Your task to perform on an android device: open app "Chime – Mobile Banking" (install if not already installed) Image 0: 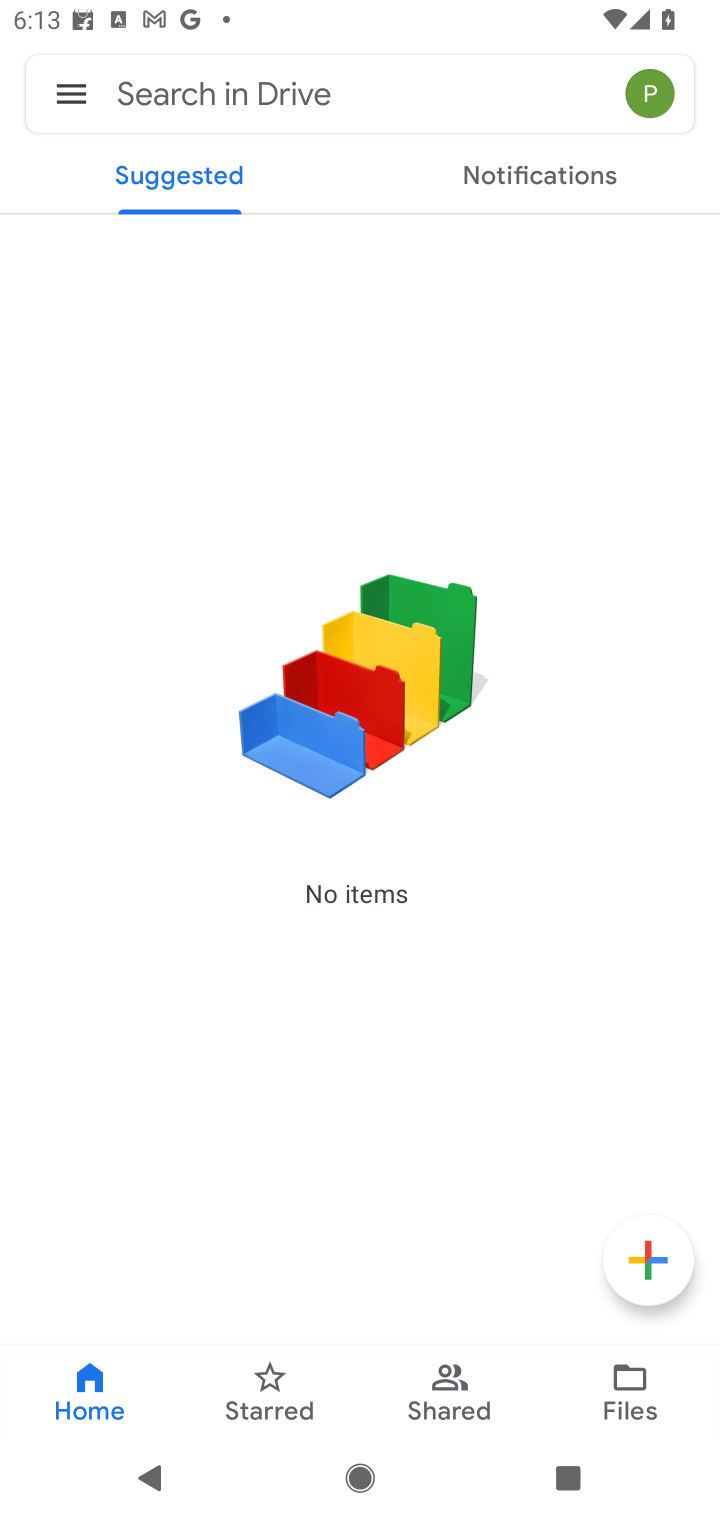
Step 0: press home button
Your task to perform on an android device: open app "Chime – Mobile Banking" (install if not already installed) Image 1: 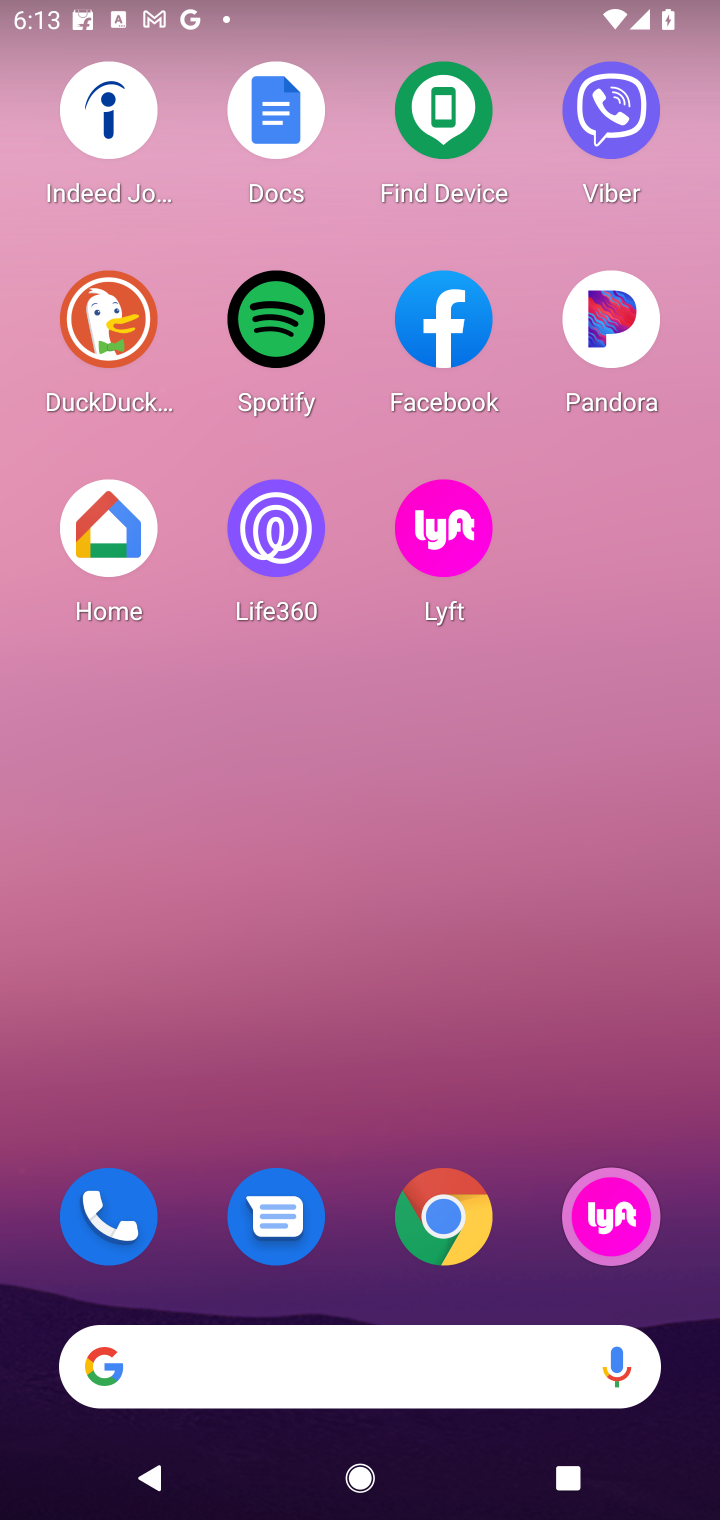
Step 1: drag from (364, 1050) to (387, 118)
Your task to perform on an android device: open app "Chime – Mobile Banking" (install if not already installed) Image 2: 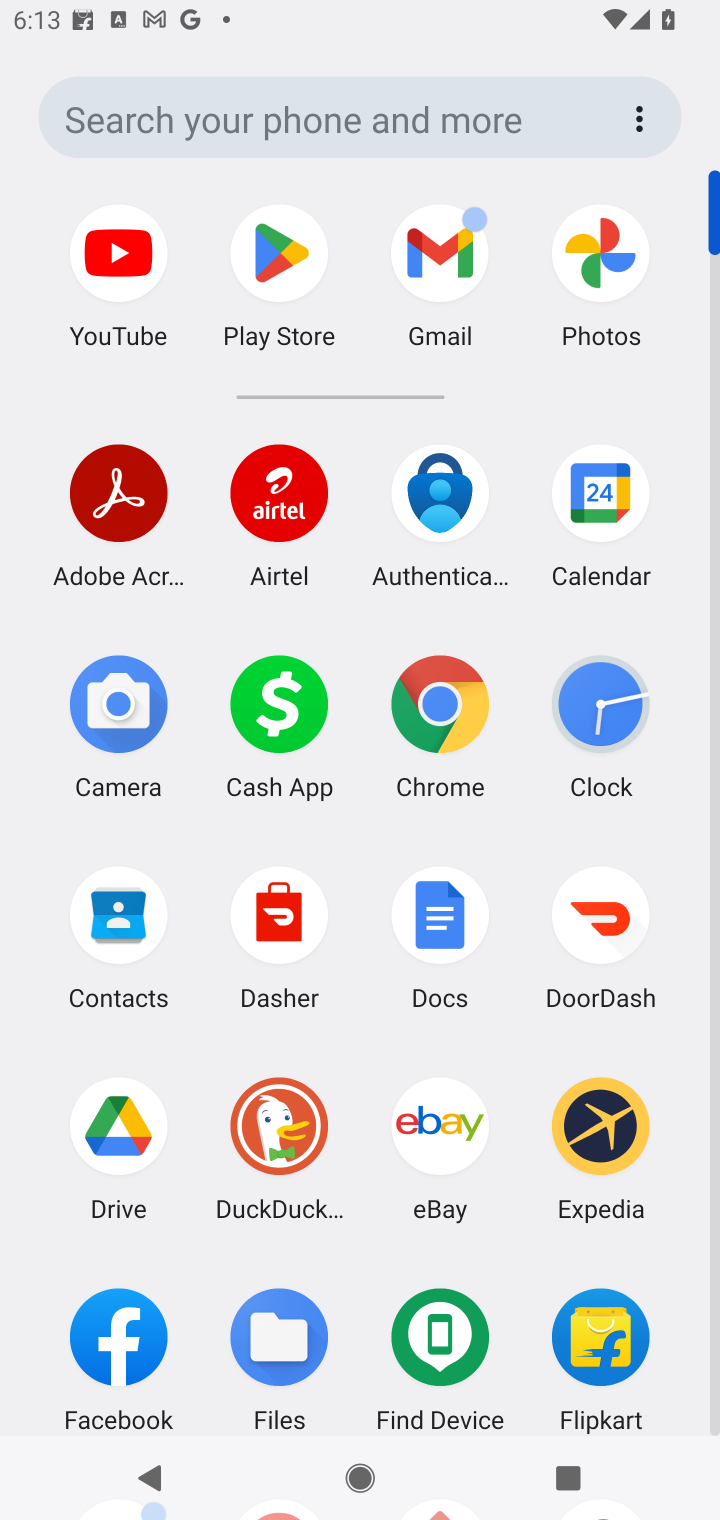
Step 2: click (294, 248)
Your task to perform on an android device: open app "Chime – Mobile Banking" (install if not already installed) Image 3: 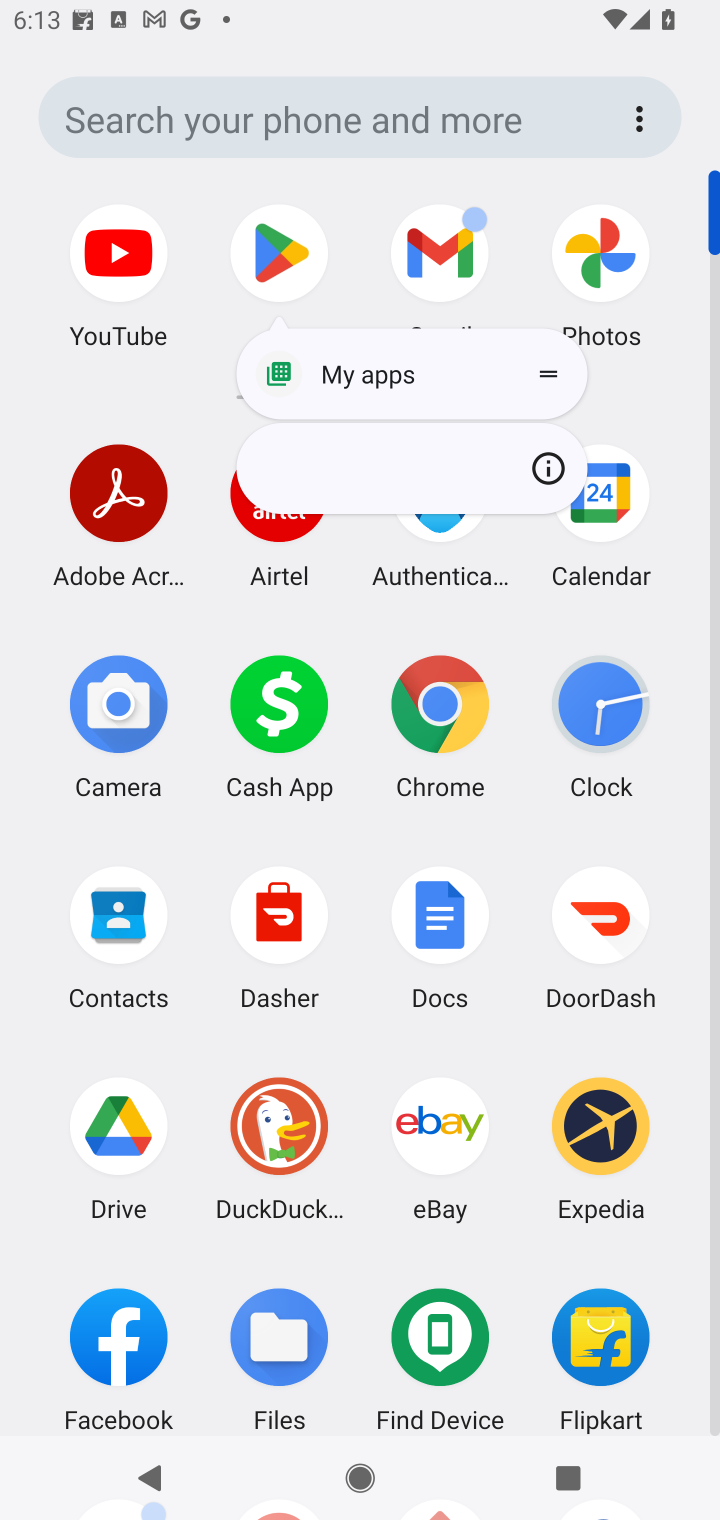
Step 3: click (282, 248)
Your task to perform on an android device: open app "Chime – Mobile Banking" (install if not already installed) Image 4: 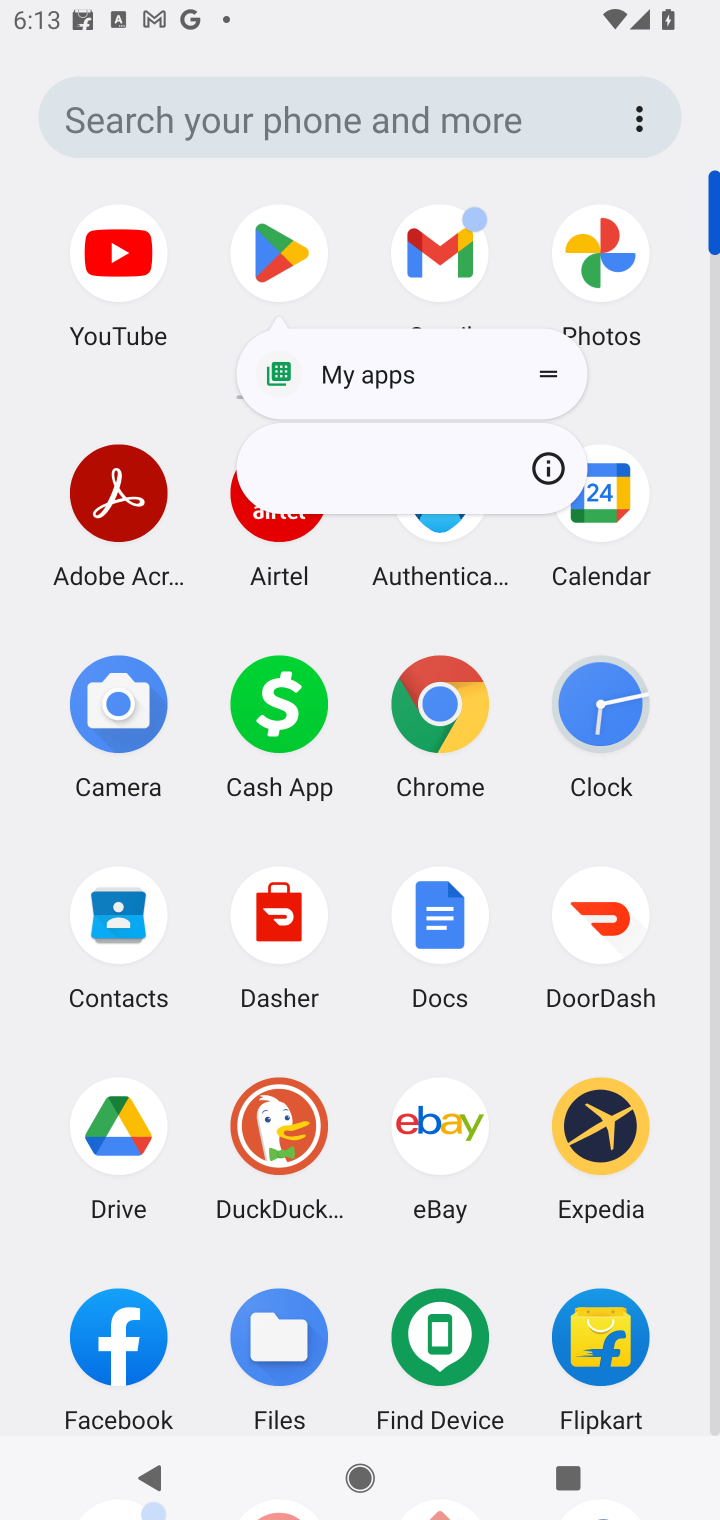
Step 4: click (282, 248)
Your task to perform on an android device: open app "Chime – Mobile Banking" (install if not already installed) Image 5: 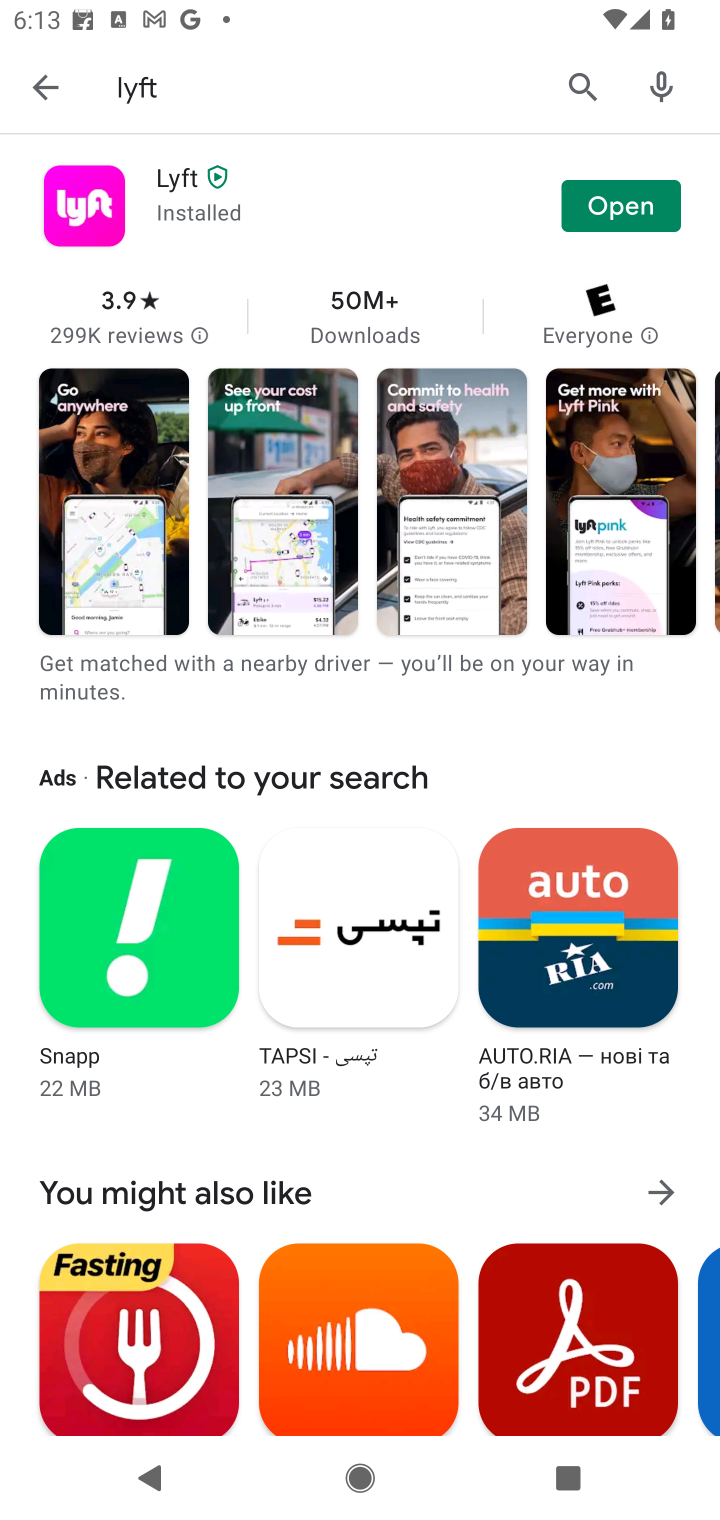
Step 5: click (574, 88)
Your task to perform on an android device: open app "Chime – Mobile Banking" (install if not already installed) Image 6: 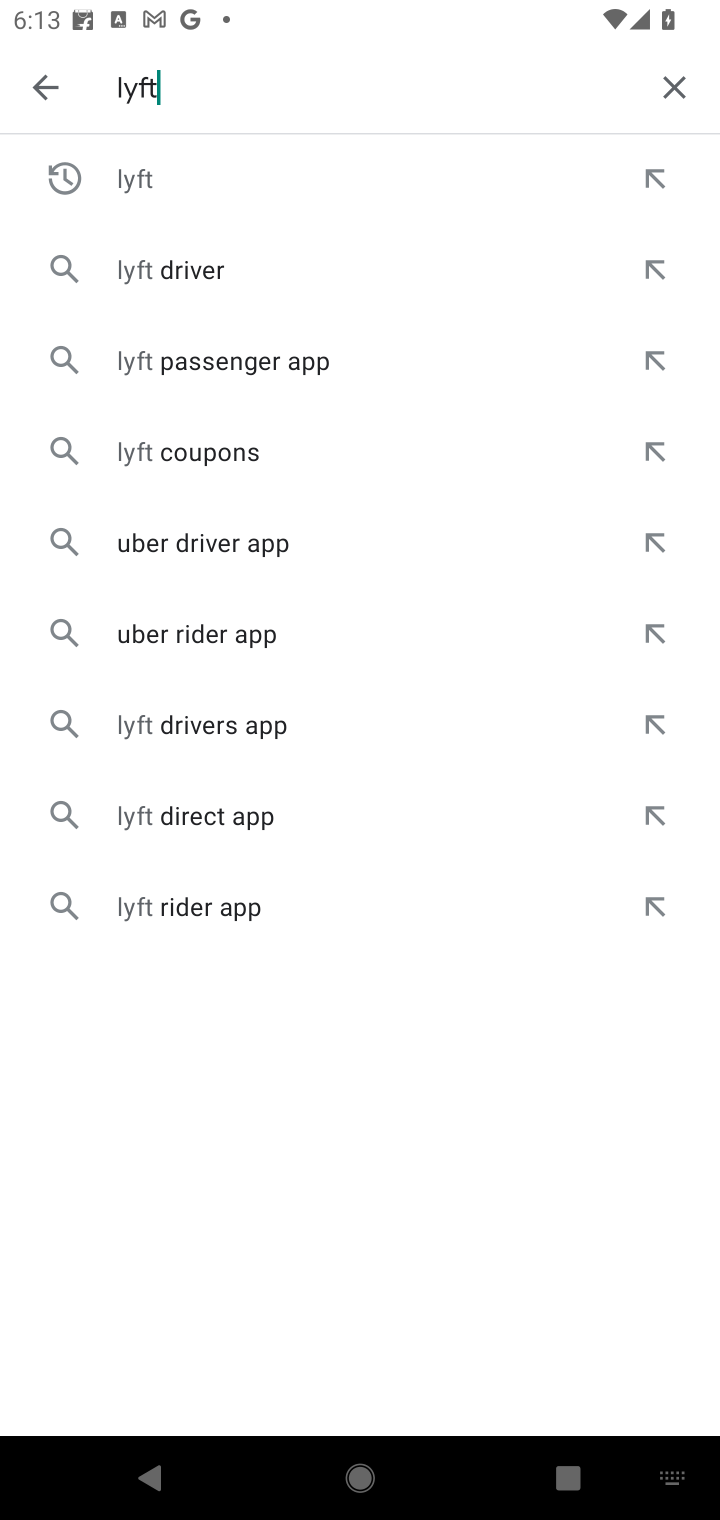
Step 6: click (664, 86)
Your task to perform on an android device: open app "Chime – Mobile Banking" (install if not already installed) Image 7: 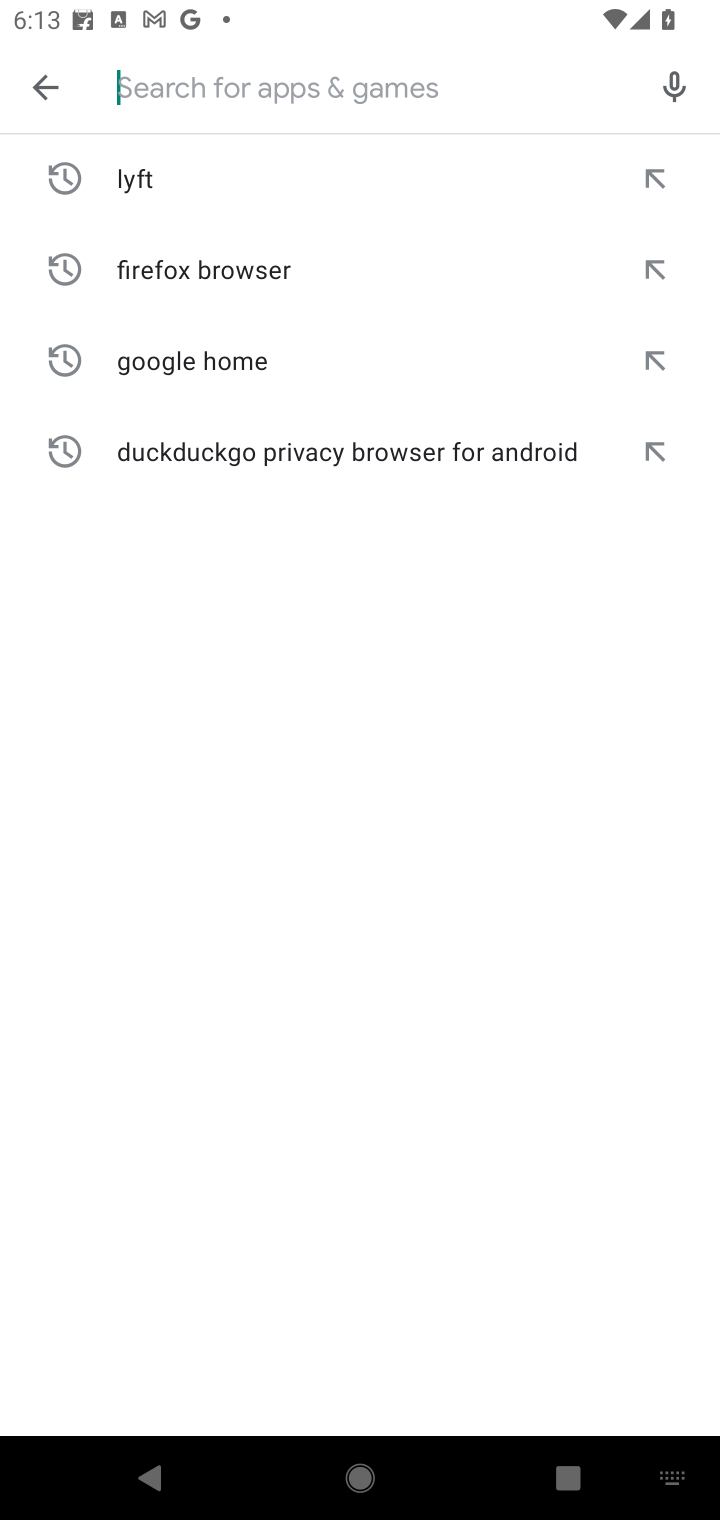
Step 7: type "Chime – Mobile Banking"
Your task to perform on an android device: open app "Chime – Mobile Banking" (install if not already installed) Image 8: 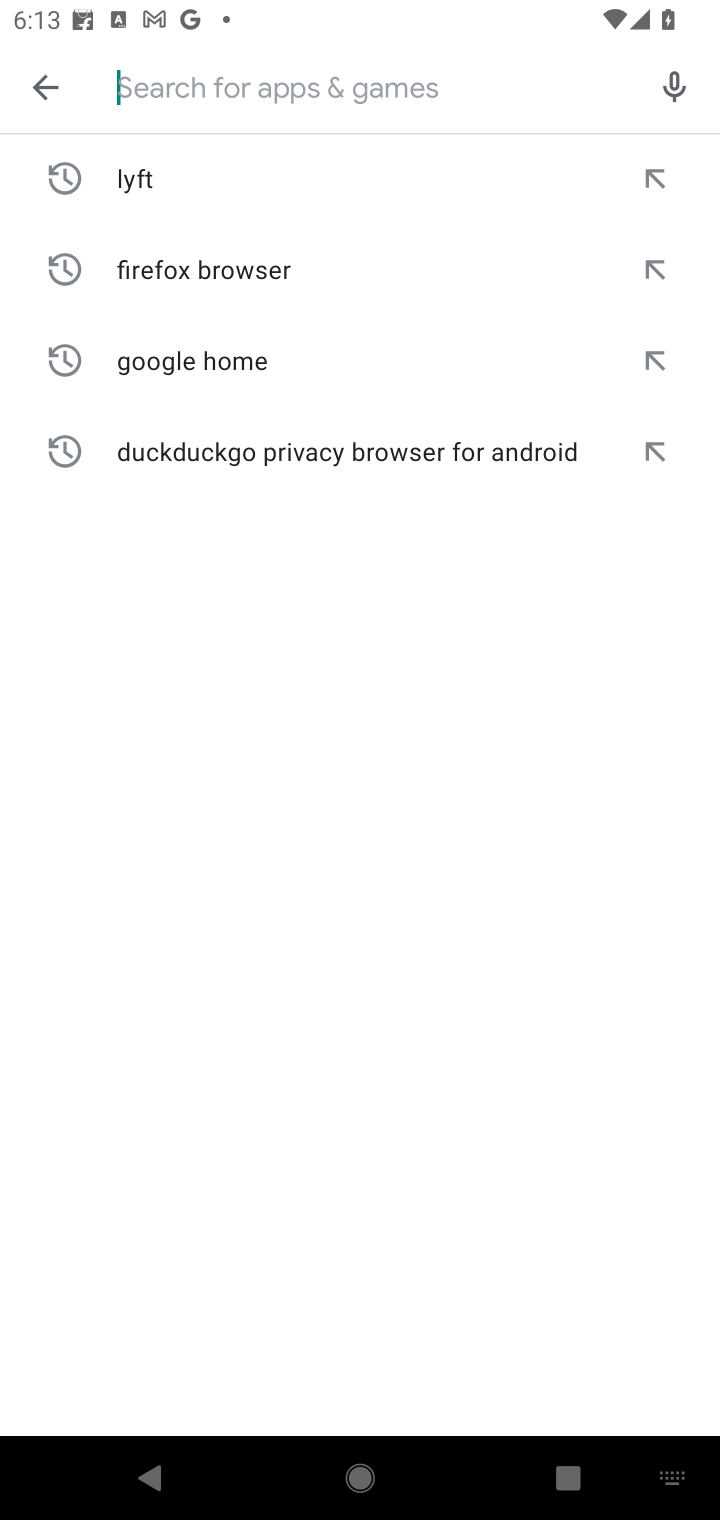
Step 8: type ""
Your task to perform on an android device: open app "Chime – Mobile Banking" (install if not already installed) Image 9: 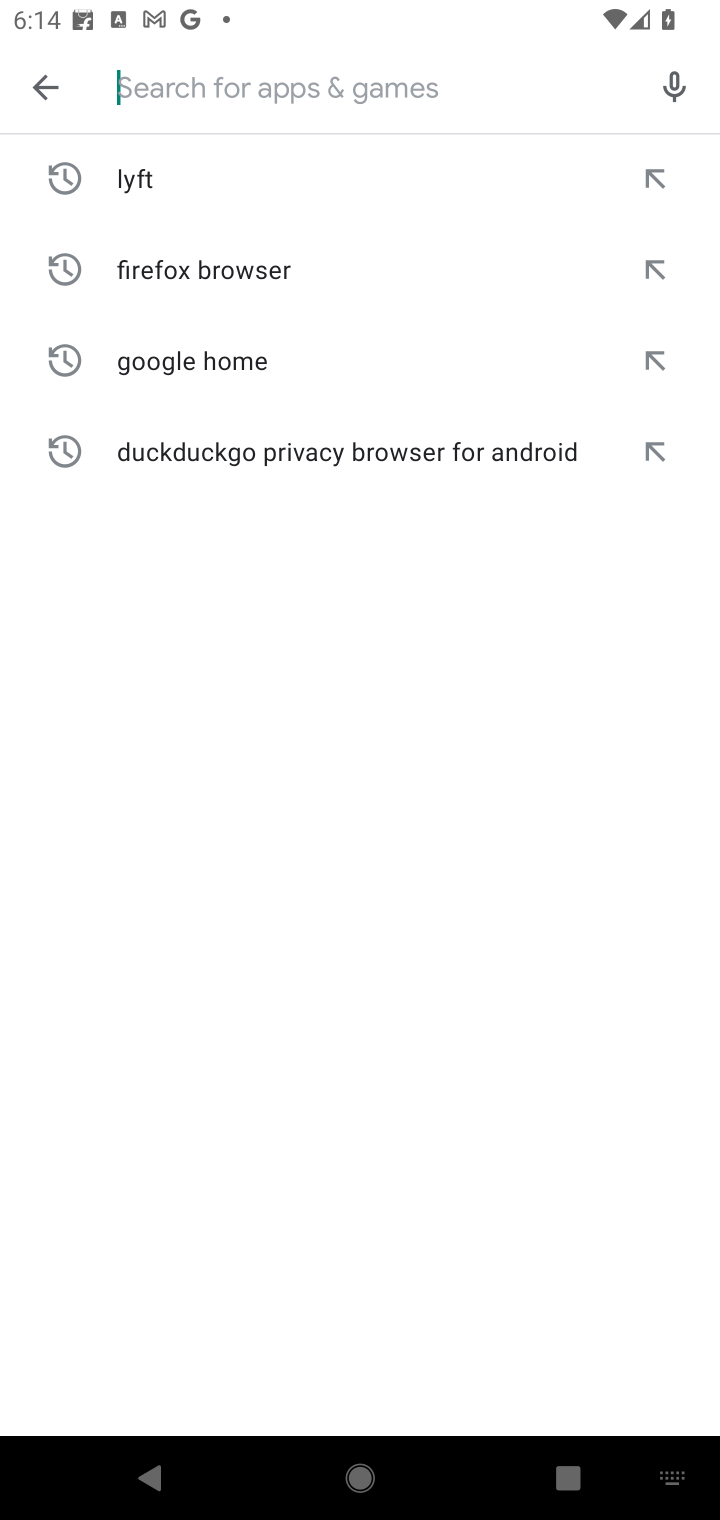
Step 9: type "Chime"
Your task to perform on an android device: open app "Chime – Mobile Banking" (install if not already installed) Image 10: 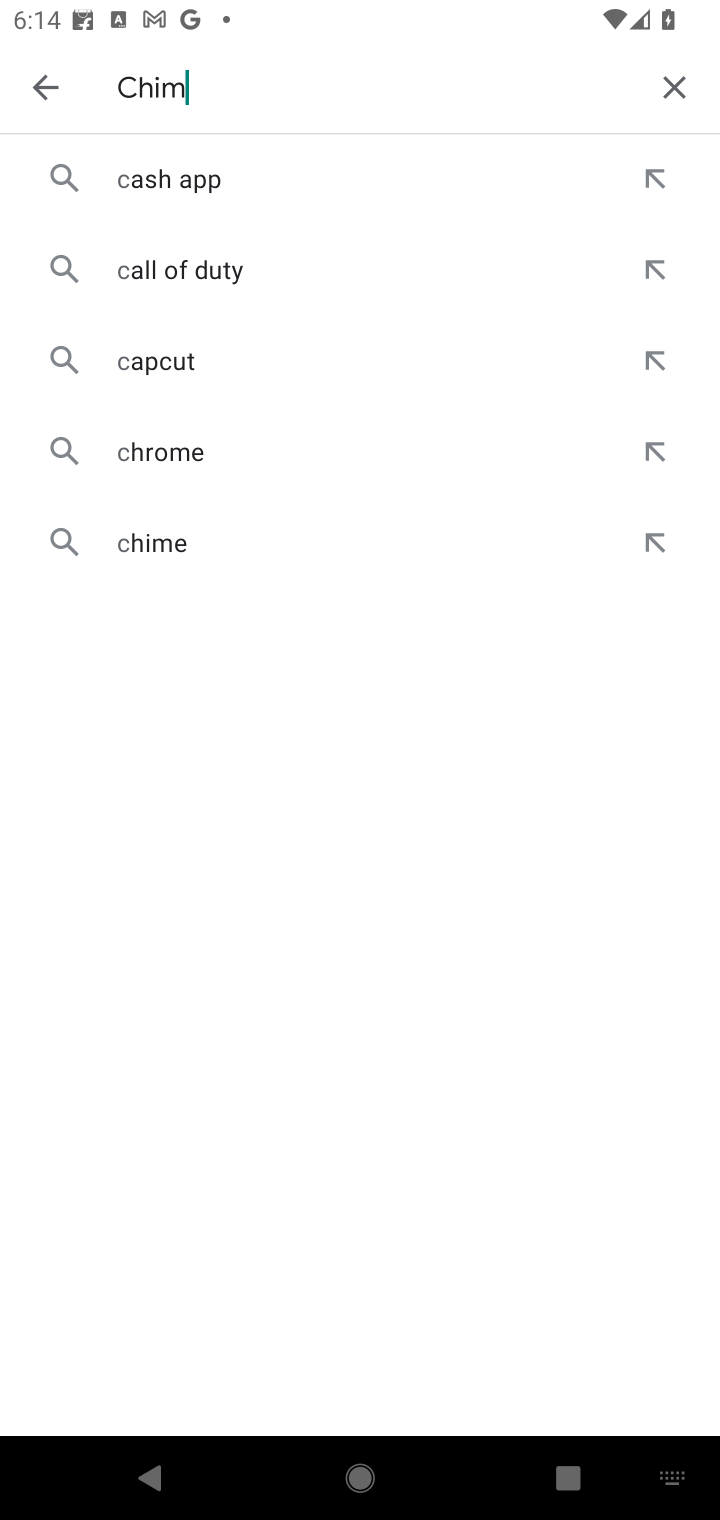
Step 10: type ""
Your task to perform on an android device: open app "Chime – Mobile Banking" (install if not already installed) Image 11: 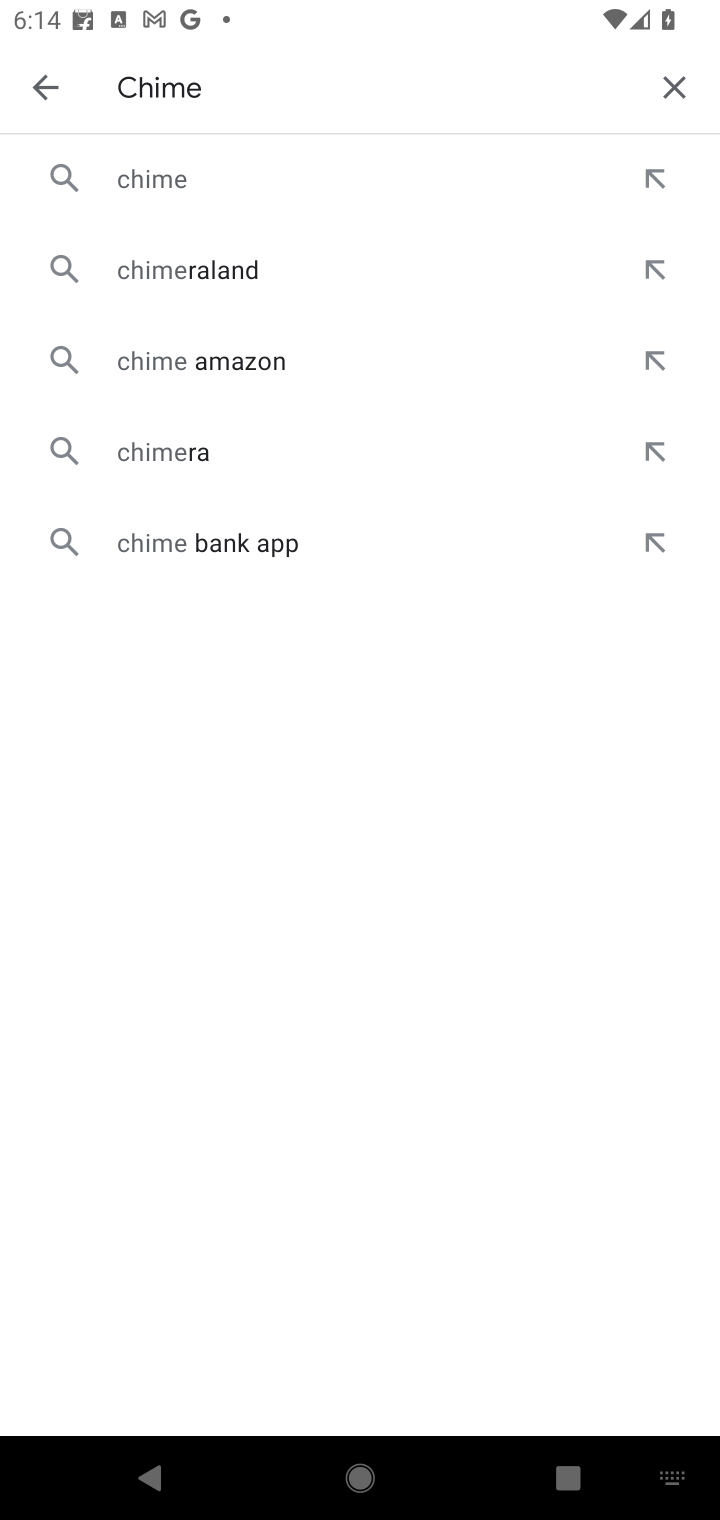
Step 11: click (258, 173)
Your task to perform on an android device: open app "Chime – Mobile Banking" (install if not already installed) Image 12: 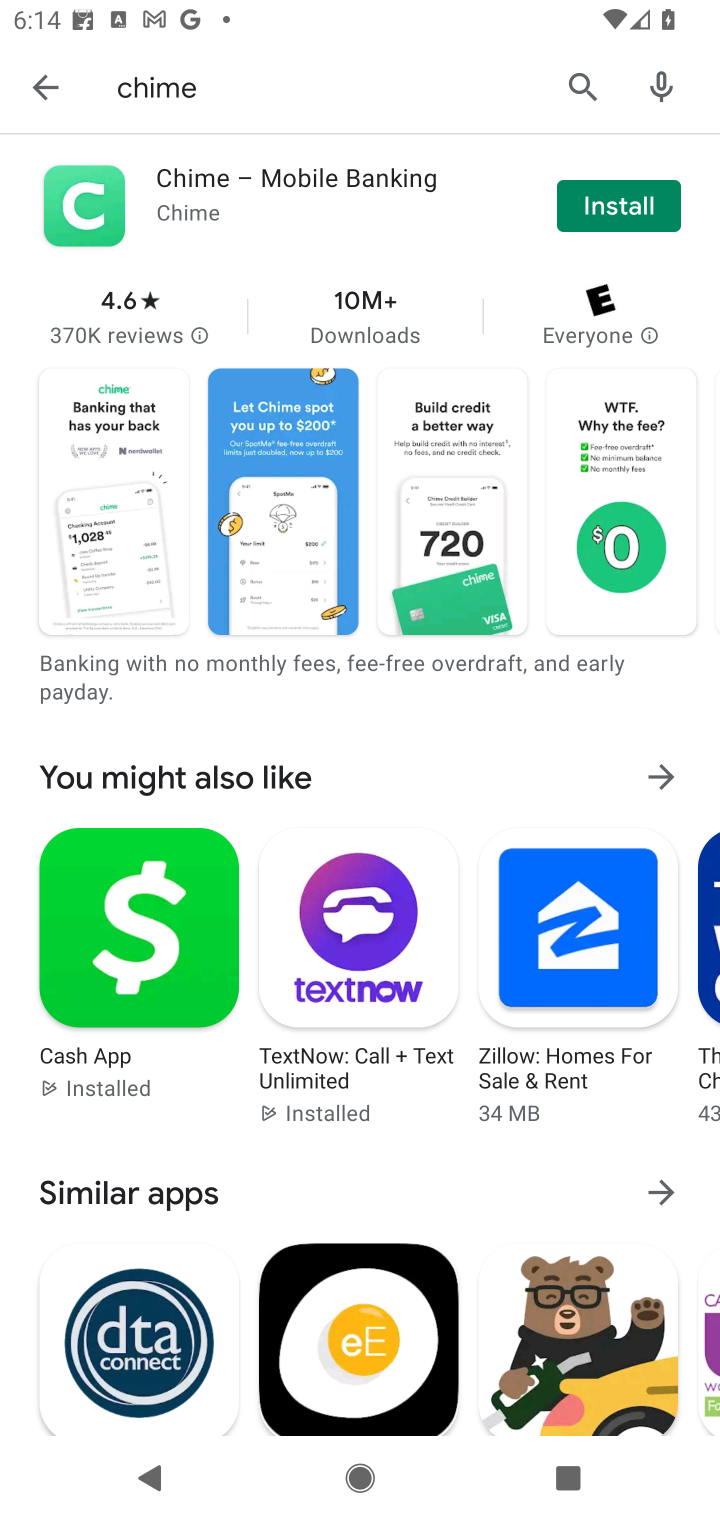
Step 12: click (611, 185)
Your task to perform on an android device: open app "Chime – Mobile Banking" (install if not already installed) Image 13: 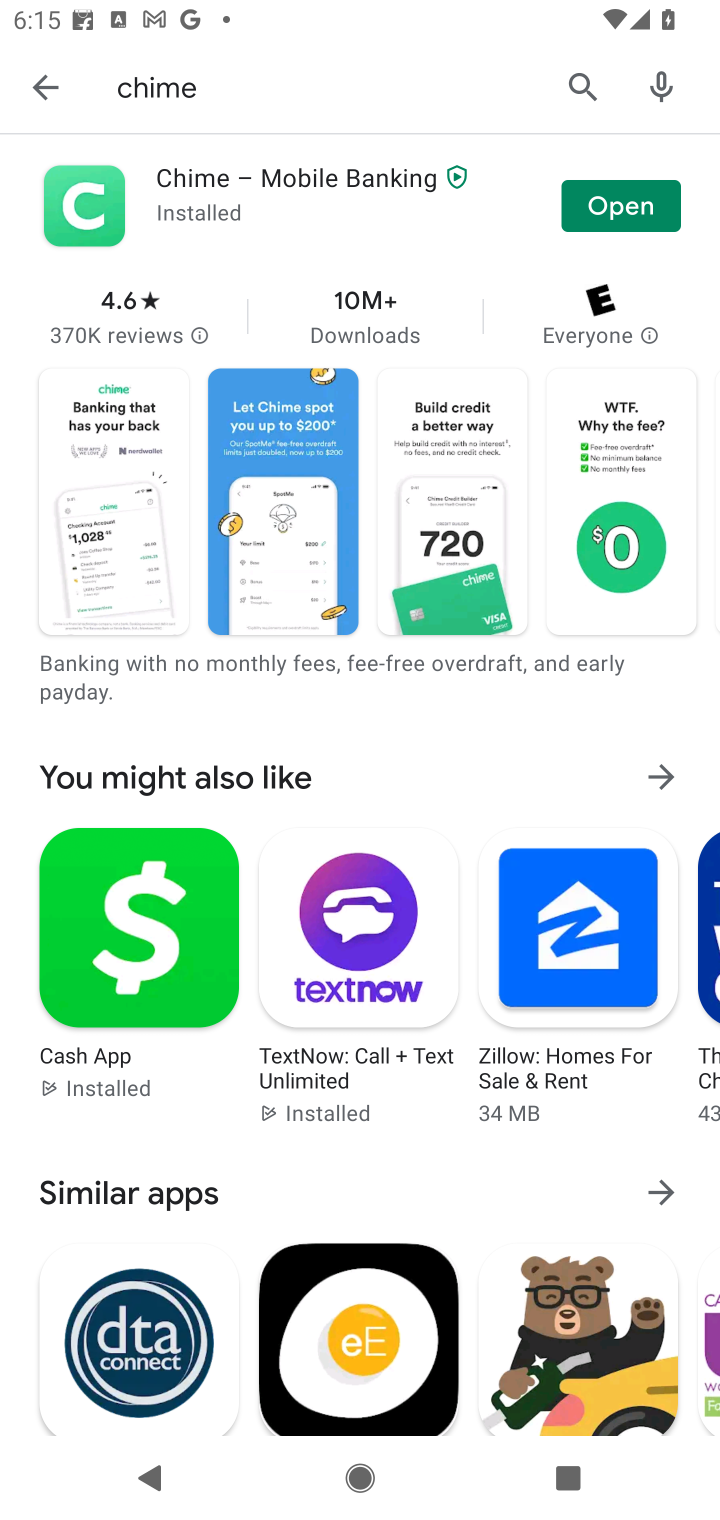
Step 13: click (661, 202)
Your task to perform on an android device: open app "Chime – Mobile Banking" (install if not already installed) Image 14: 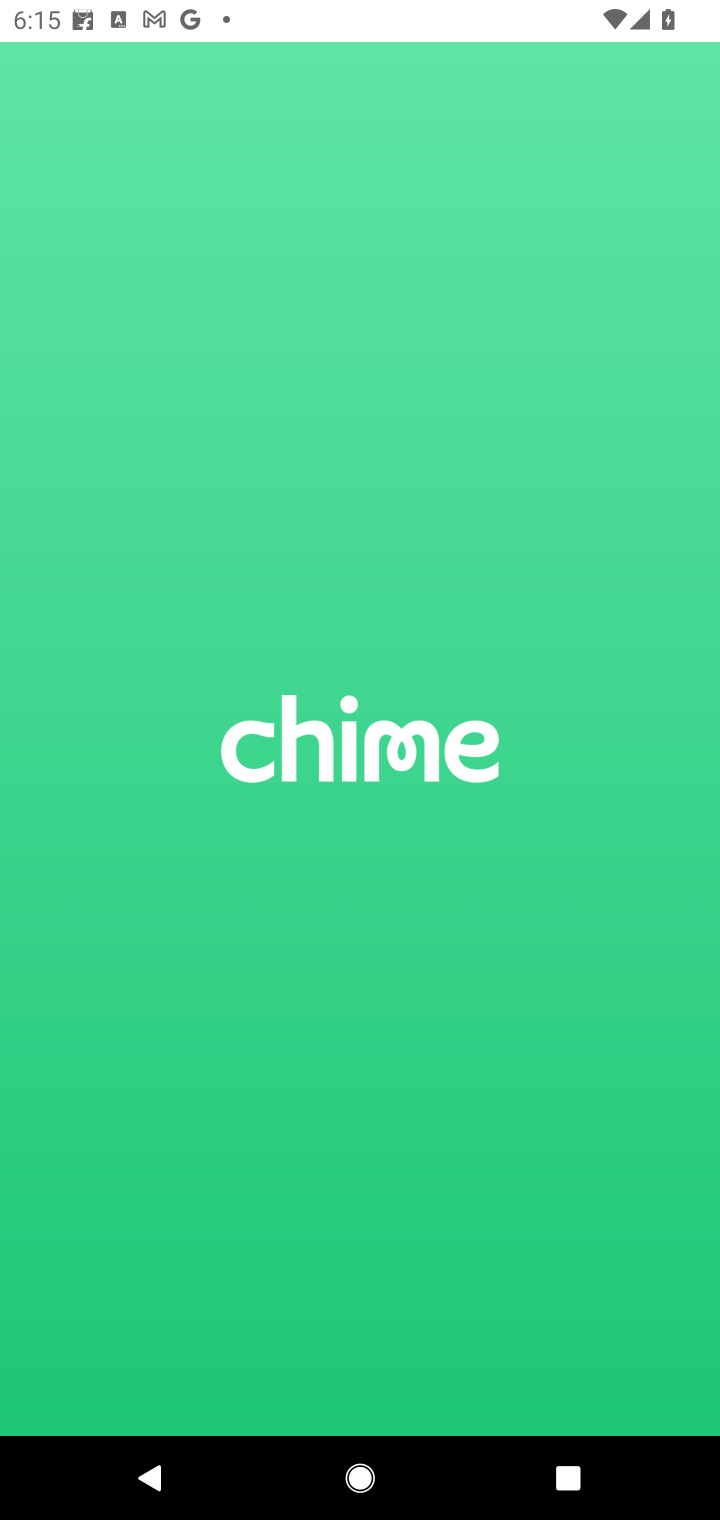
Step 14: task complete